Your task to perform on an android device: toggle notifications settings in the gmail app Image 0: 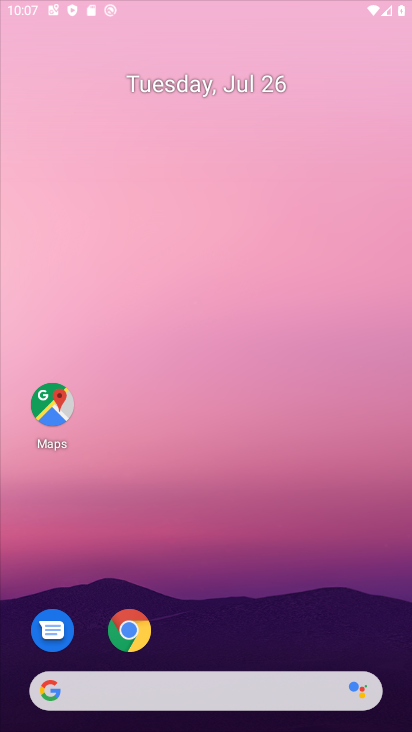
Step 0: drag from (237, 281) to (364, 287)
Your task to perform on an android device: toggle notifications settings in the gmail app Image 1: 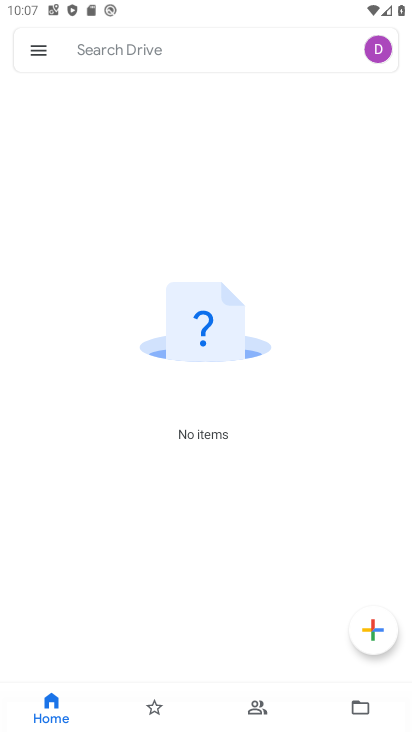
Step 1: press home button
Your task to perform on an android device: toggle notifications settings in the gmail app Image 2: 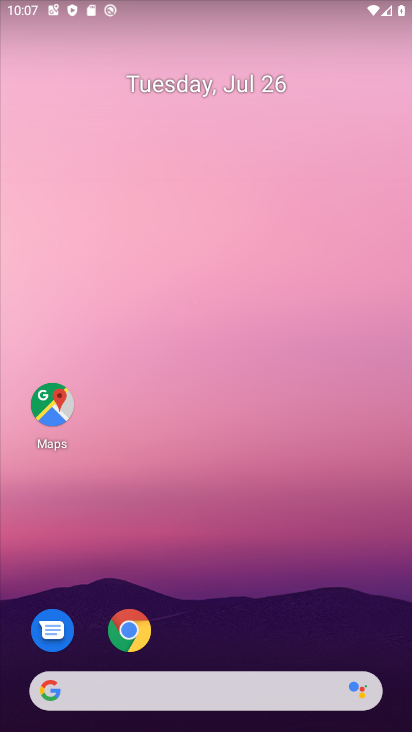
Step 2: drag from (377, 634) to (327, 274)
Your task to perform on an android device: toggle notifications settings in the gmail app Image 3: 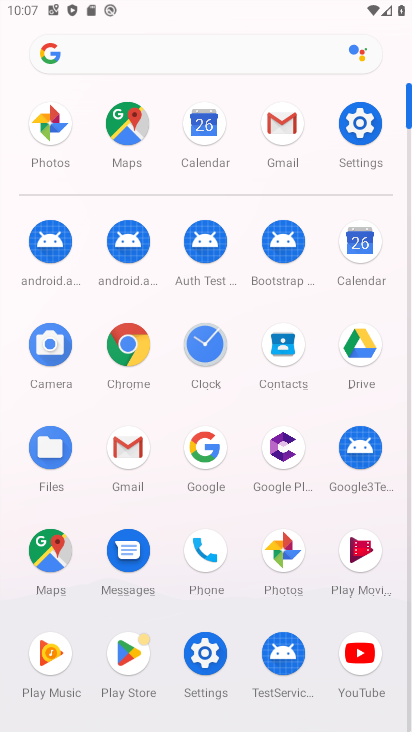
Step 3: click (127, 441)
Your task to perform on an android device: toggle notifications settings in the gmail app Image 4: 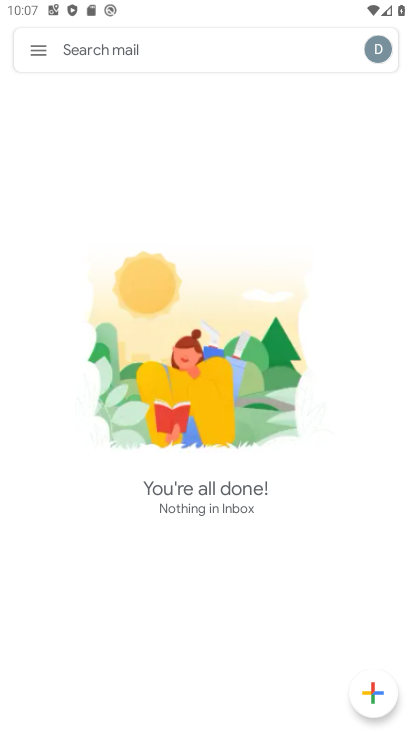
Step 4: click (31, 50)
Your task to perform on an android device: toggle notifications settings in the gmail app Image 5: 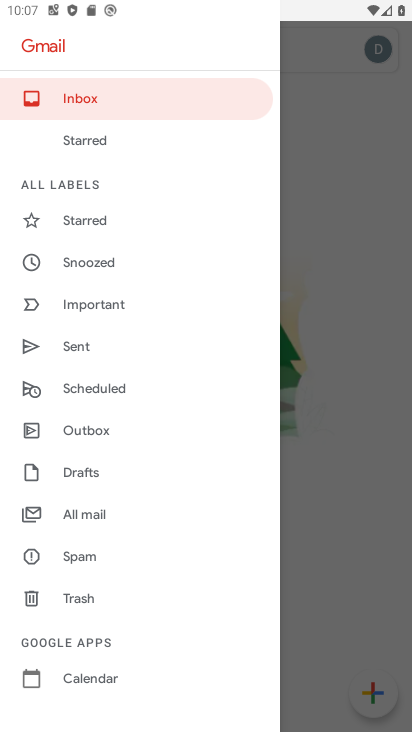
Step 5: drag from (145, 551) to (150, 256)
Your task to perform on an android device: toggle notifications settings in the gmail app Image 6: 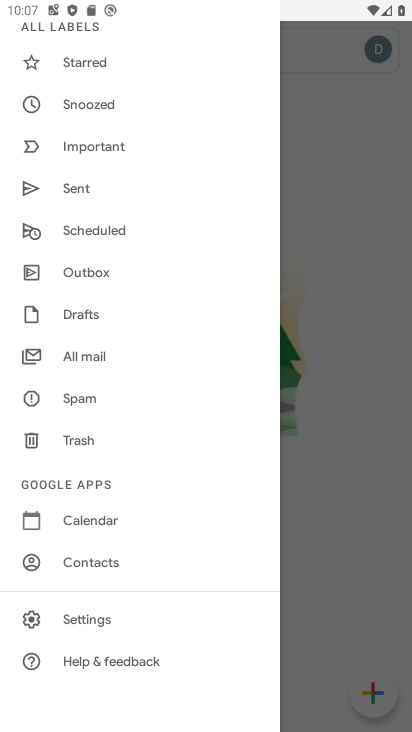
Step 6: click (76, 611)
Your task to perform on an android device: toggle notifications settings in the gmail app Image 7: 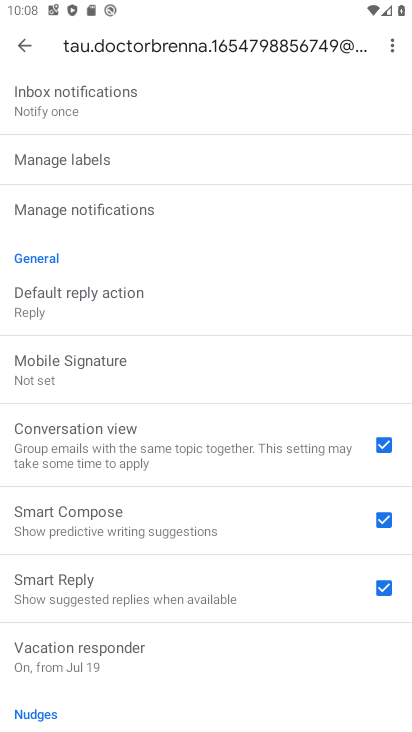
Step 7: drag from (201, 603) to (218, 279)
Your task to perform on an android device: toggle notifications settings in the gmail app Image 8: 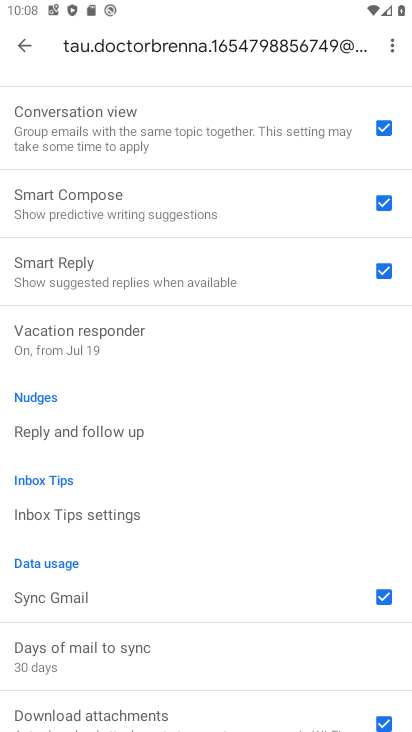
Step 8: drag from (221, 324) to (200, 686)
Your task to perform on an android device: toggle notifications settings in the gmail app Image 9: 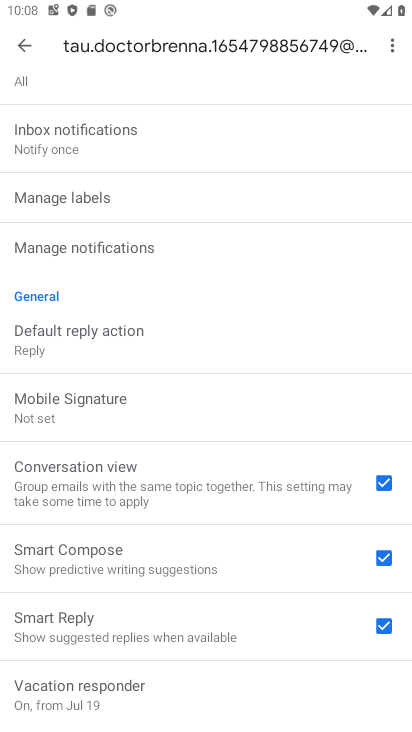
Step 9: click (61, 244)
Your task to perform on an android device: toggle notifications settings in the gmail app Image 10: 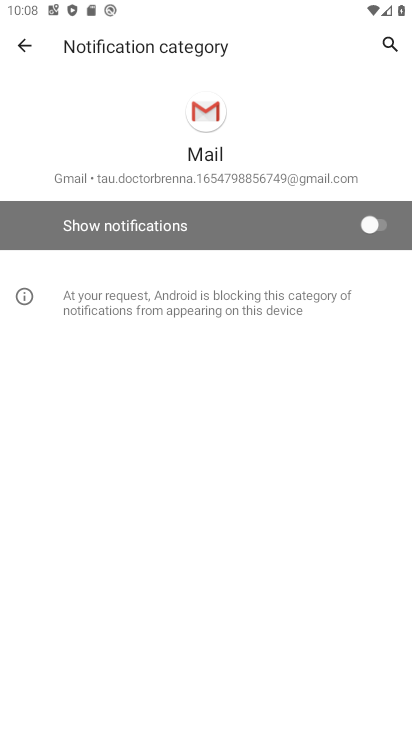
Step 10: click (387, 226)
Your task to perform on an android device: toggle notifications settings in the gmail app Image 11: 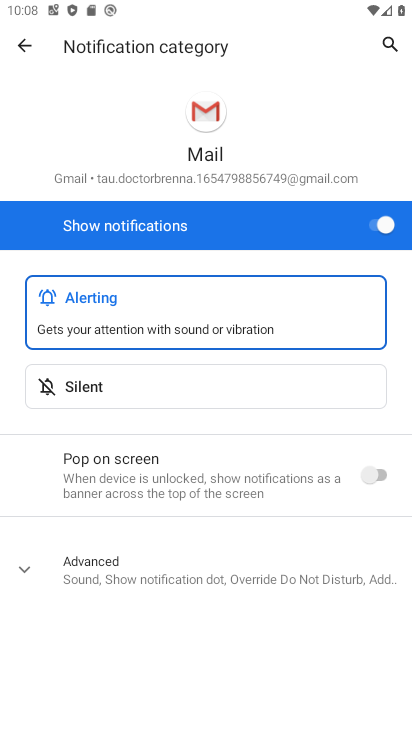
Step 11: task complete